Your task to perform on an android device: Open Chrome and go to settings Image 0: 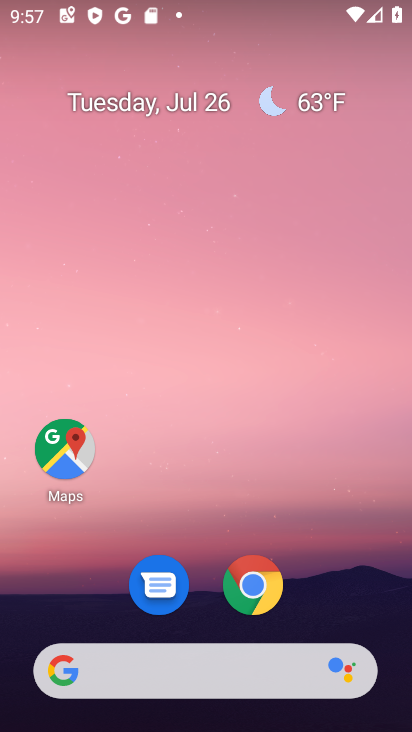
Step 0: click (261, 589)
Your task to perform on an android device: Open Chrome and go to settings Image 1: 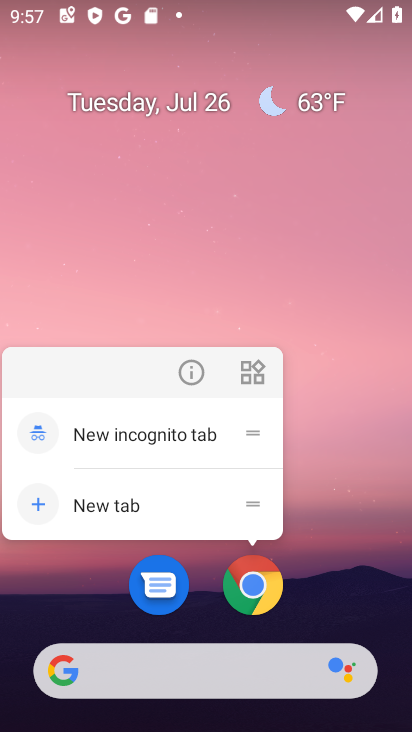
Step 1: click (259, 594)
Your task to perform on an android device: Open Chrome and go to settings Image 2: 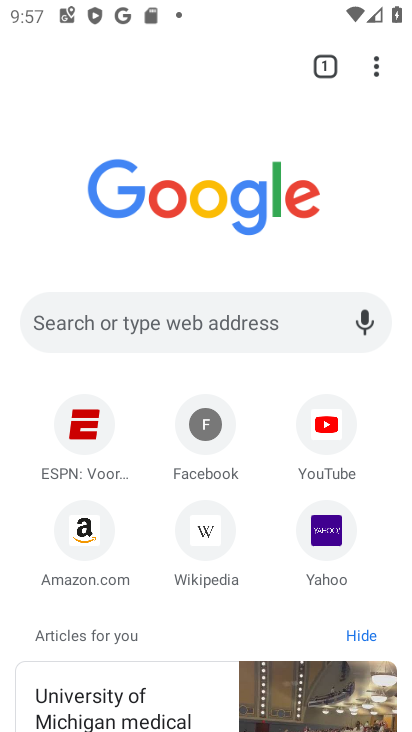
Step 2: click (371, 69)
Your task to perform on an android device: Open Chrome and go to settings Image 3: 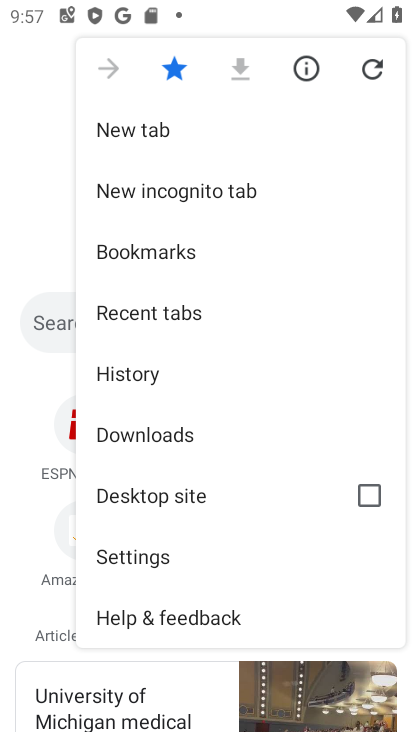
Step 3: click (145, 554)
Your task to perform on an android device: Open Chrome and go to settings Image 4: 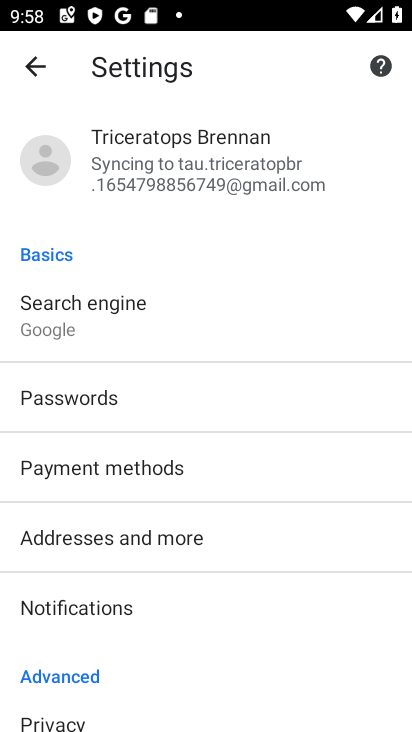
Step 4: task complete